Your task to perform on an android device: open app "Microsoft Excel" (install if not already installed) Image 0: 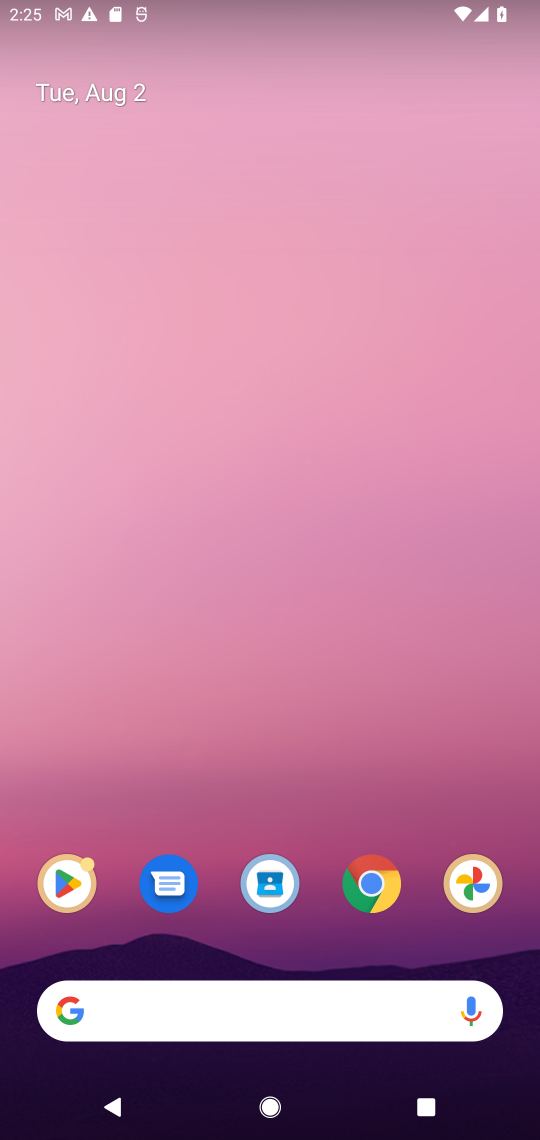
Step 0: press home button
Your task to perform on an android device: open app "Microsoft Excel" (install if not already installed) Image 1: 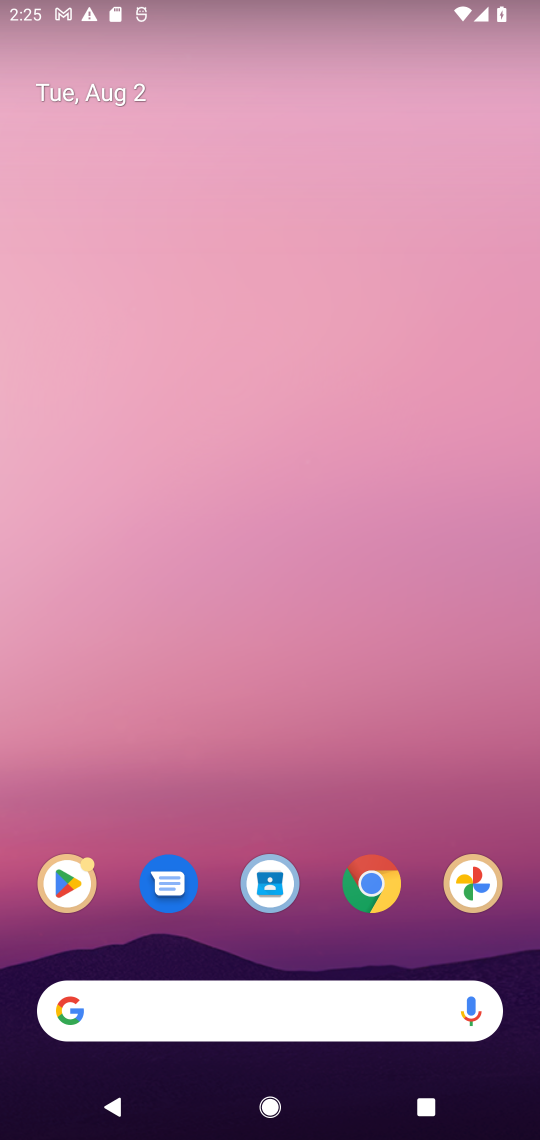
Step 1: drag from (359, 759) to (354, 23)
Your task to perform on an android device: open app "Microsoft Excel" (install if not already installed) Image 2: 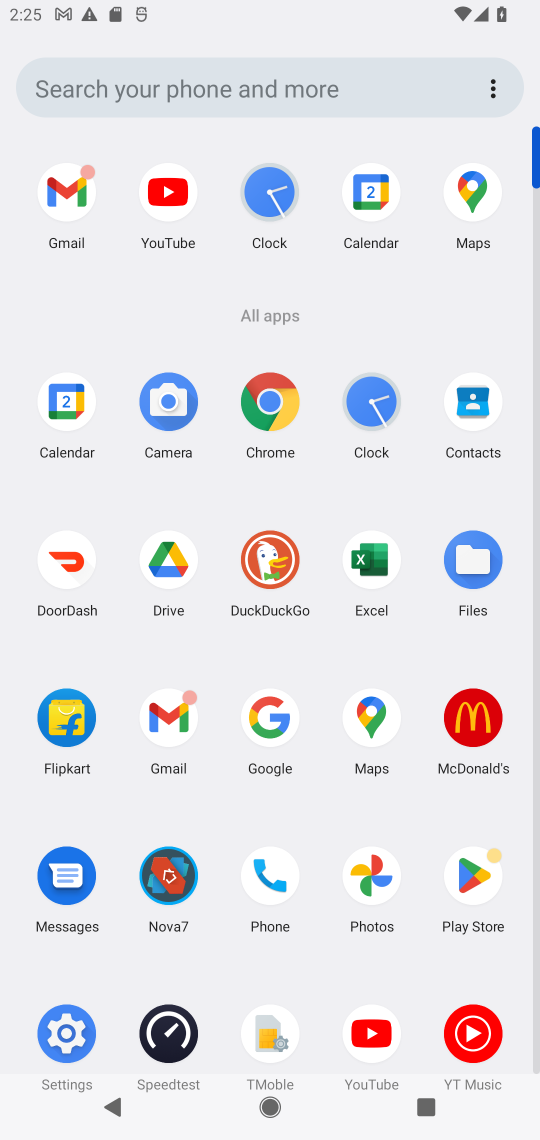
Step 2: click (471, 879)
Your task to perform on an android device: open app "Microsoft Excel" (install if not already installed) Image 3: 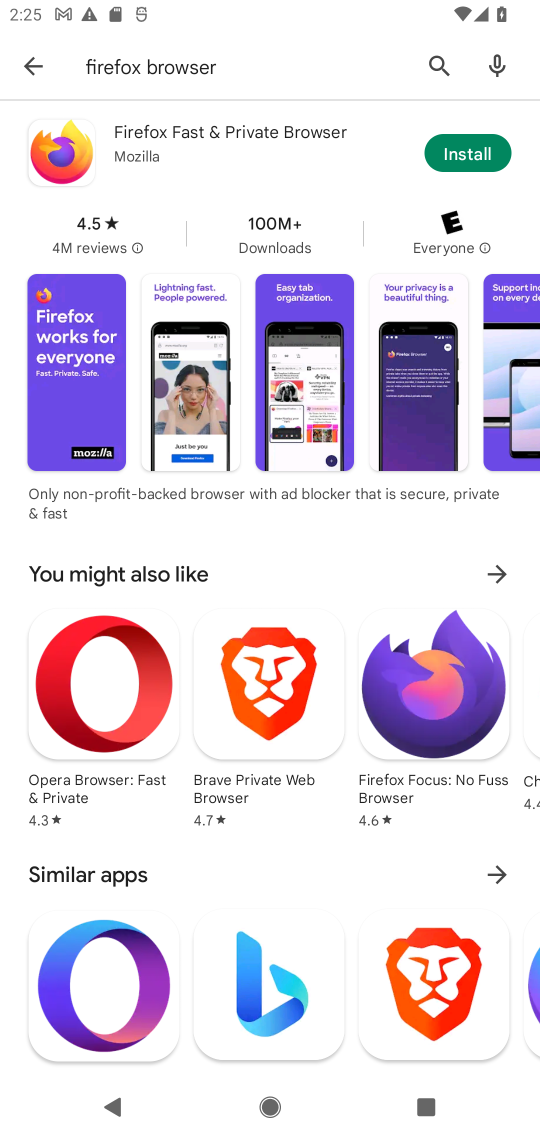
Step 3: click (426, 55)
Your task to perform on an android device: open app "Microsoft Excel" (install if not already installed) Image 4: 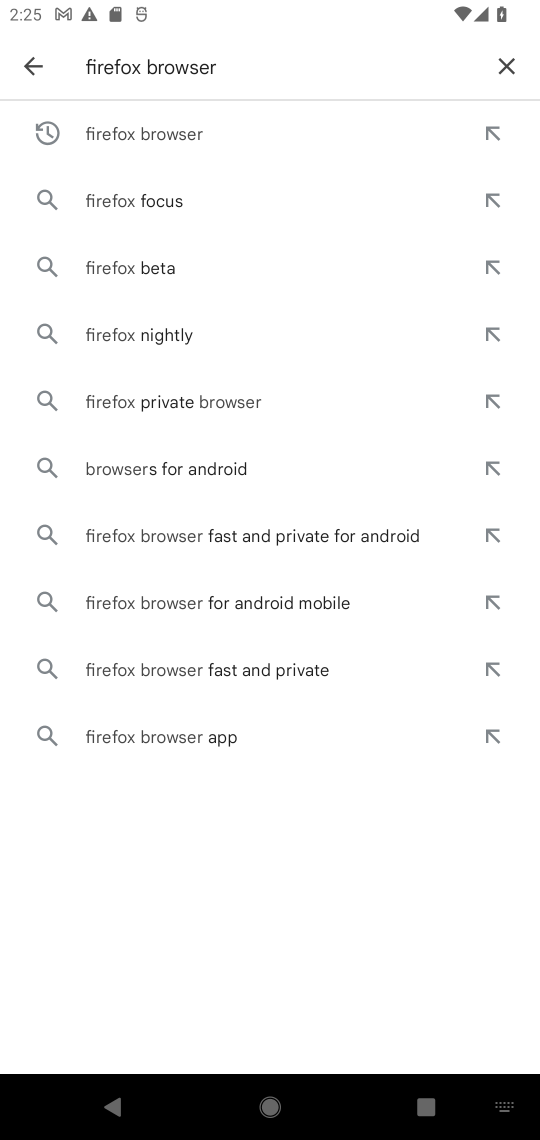
Step 4: click (516, 59)
Your task to perform on an android device: open app "Microsoft Excel" (install if not already installed) Image 5: 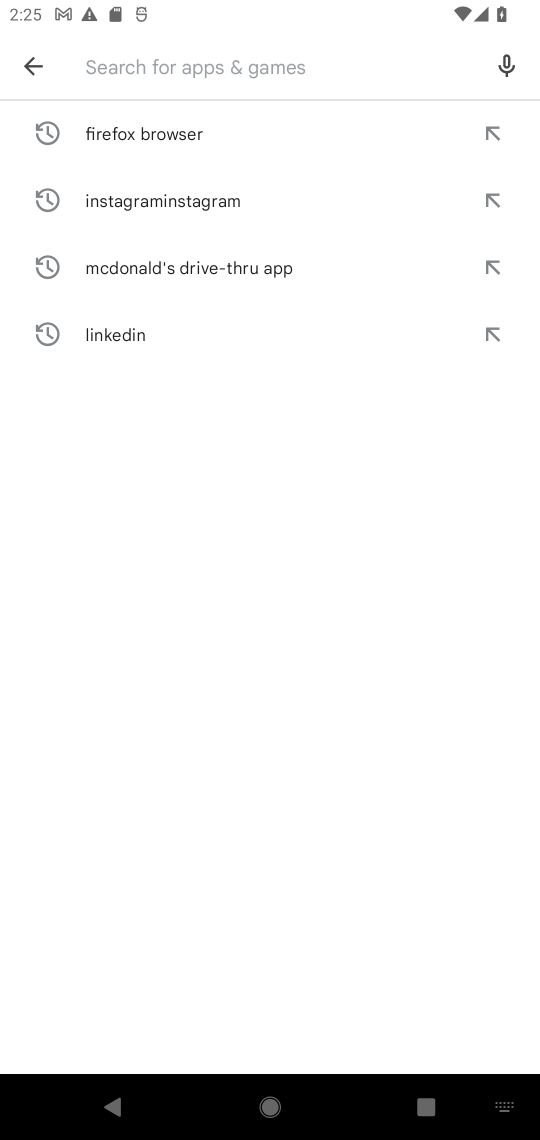
Step 5: type "Microsoft Excel"
Your task to perform on an android device: open app "Microsoft Excel" (install if not already installed) Image 6: 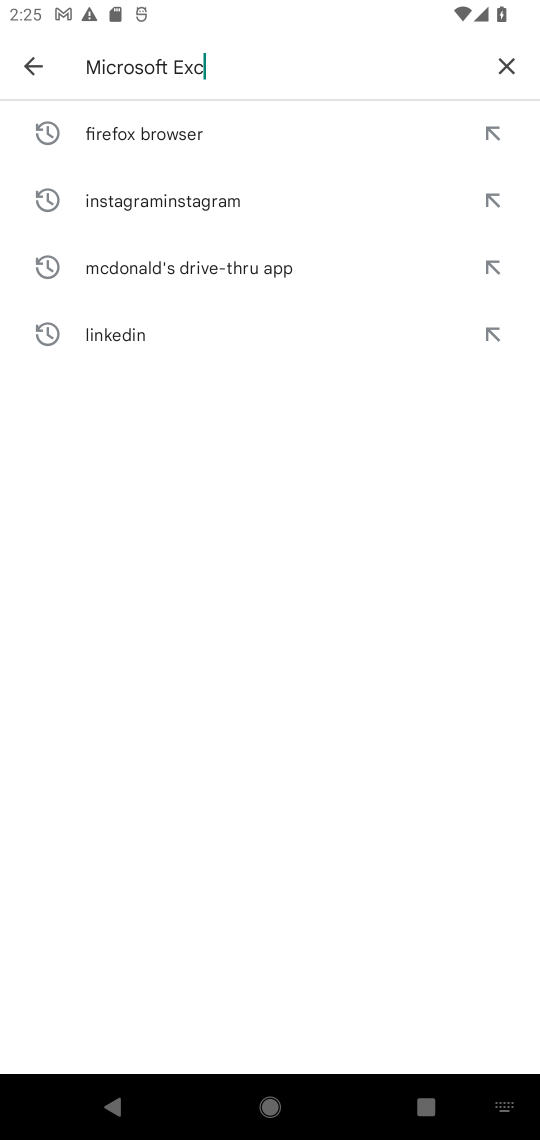
Step 6: type ""
Your task to perform on an android device: open app "Microsoft Excel" (install if not already installed) Image 7: 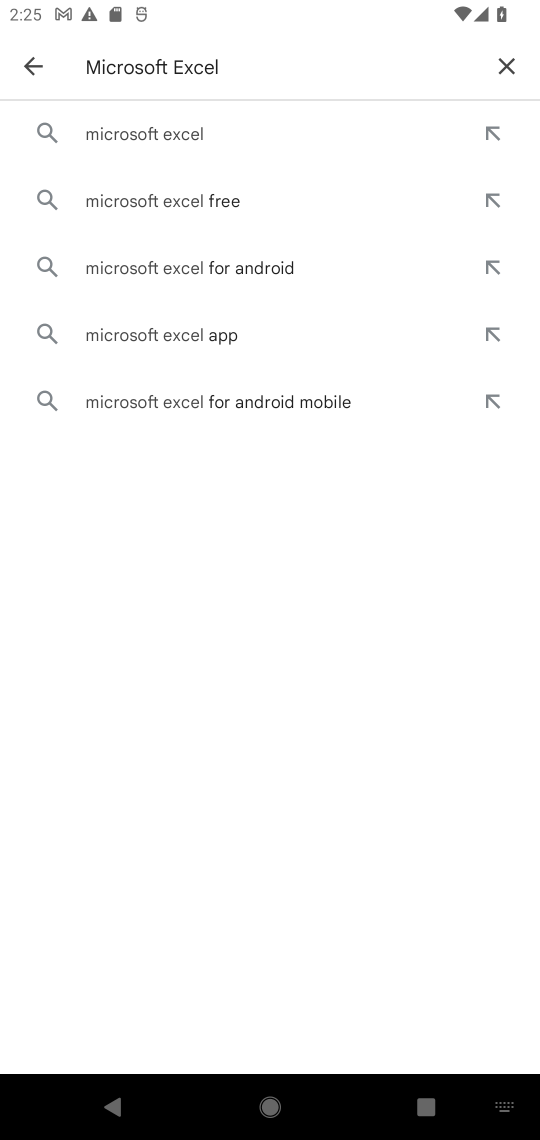
Step 7: click (72, 134)
Your task to perform on an android device: open app "Microsoft Excel" (install if not already installed) Image 8: 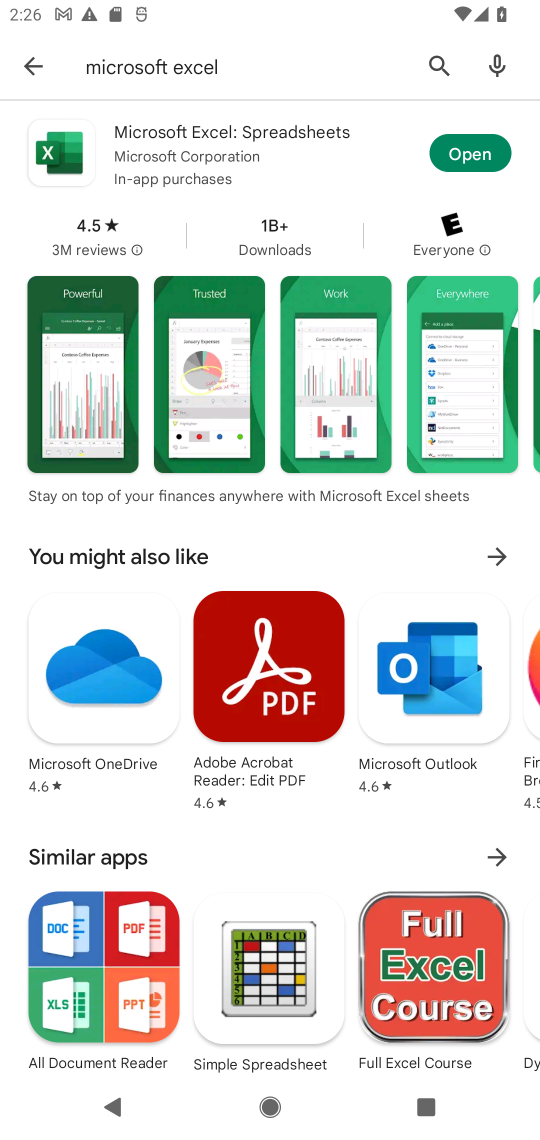
Step 8: click (495, 152)
Your task to perform on an android device: open app "Microsoft Excel" (install if not already installed) Image 9: 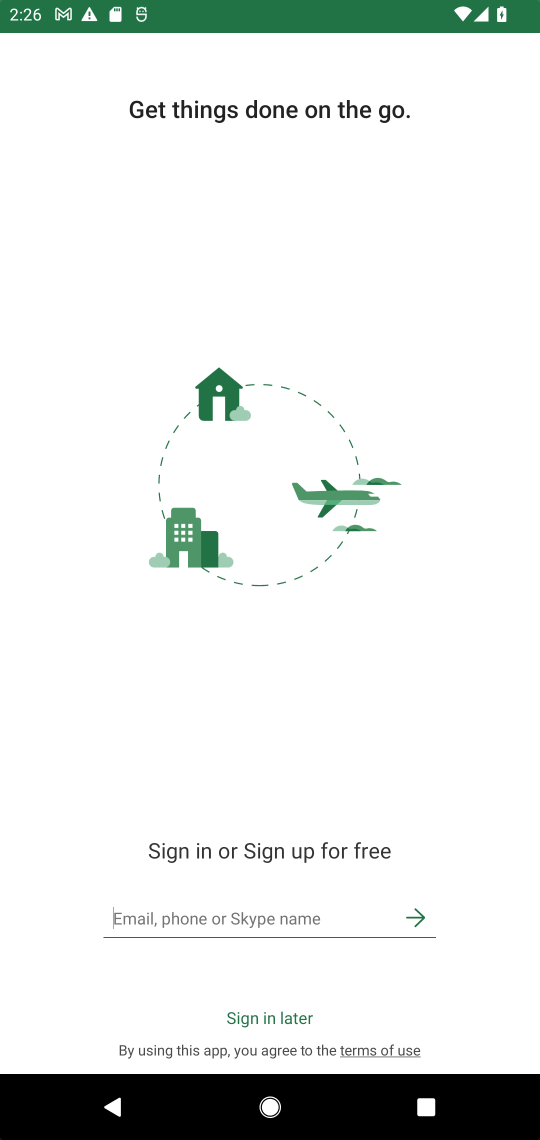
Step 9: task complete